Your task to perform on an android device: turn off data saver in the chrome app Image 0: 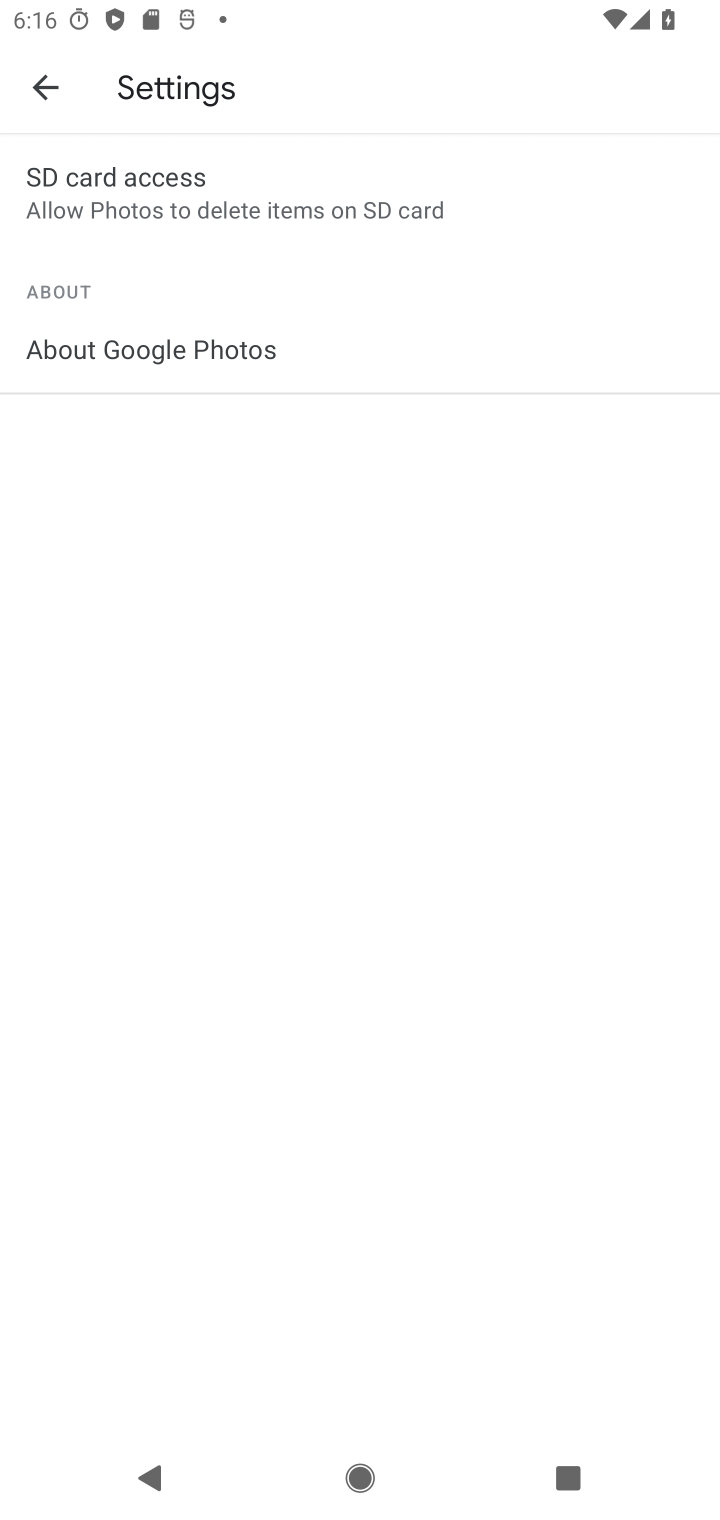
Step 0: press home button
Your task to perform on an android device: turn off data saver in the chrome app Image 1: 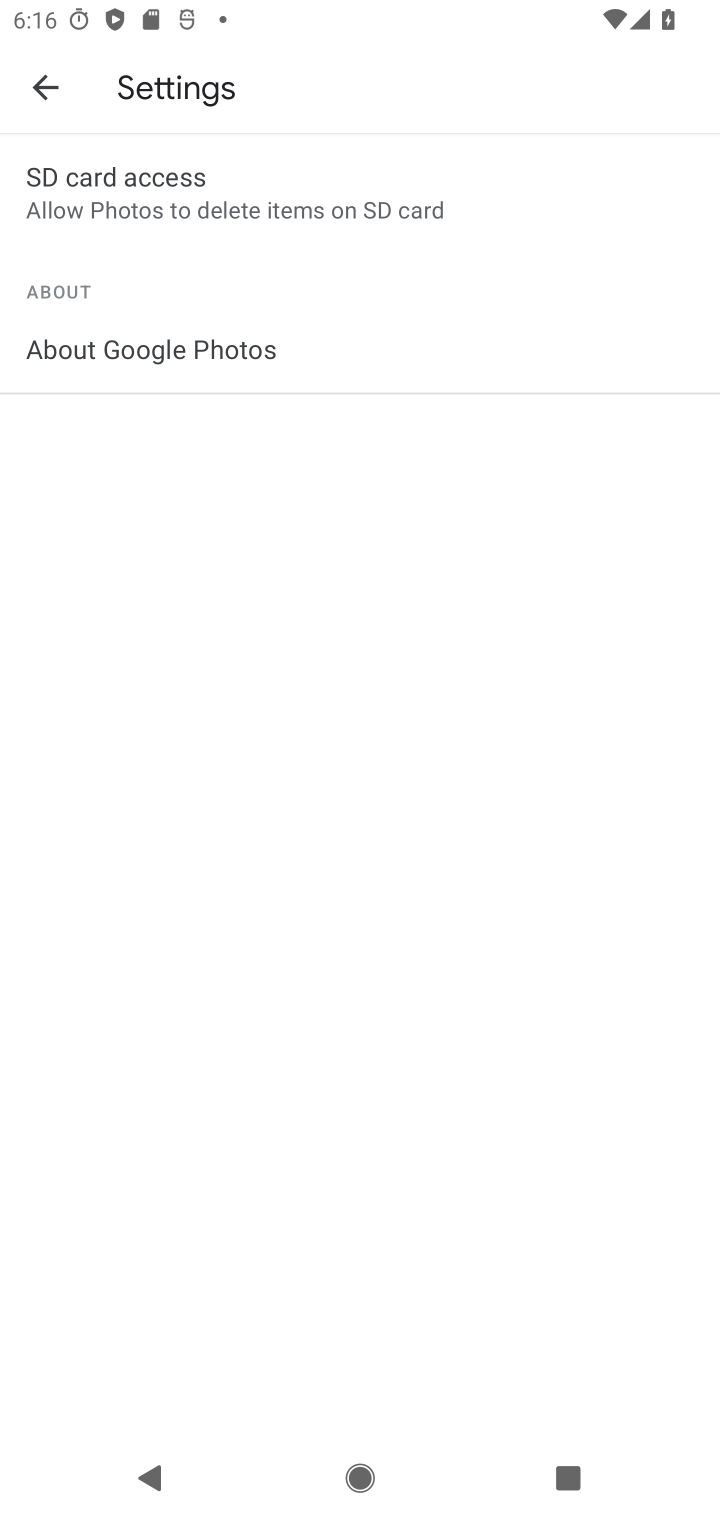
Step 1: press home button
Your task to perform on an android device: turn off data saver in the chrome app Image 2: 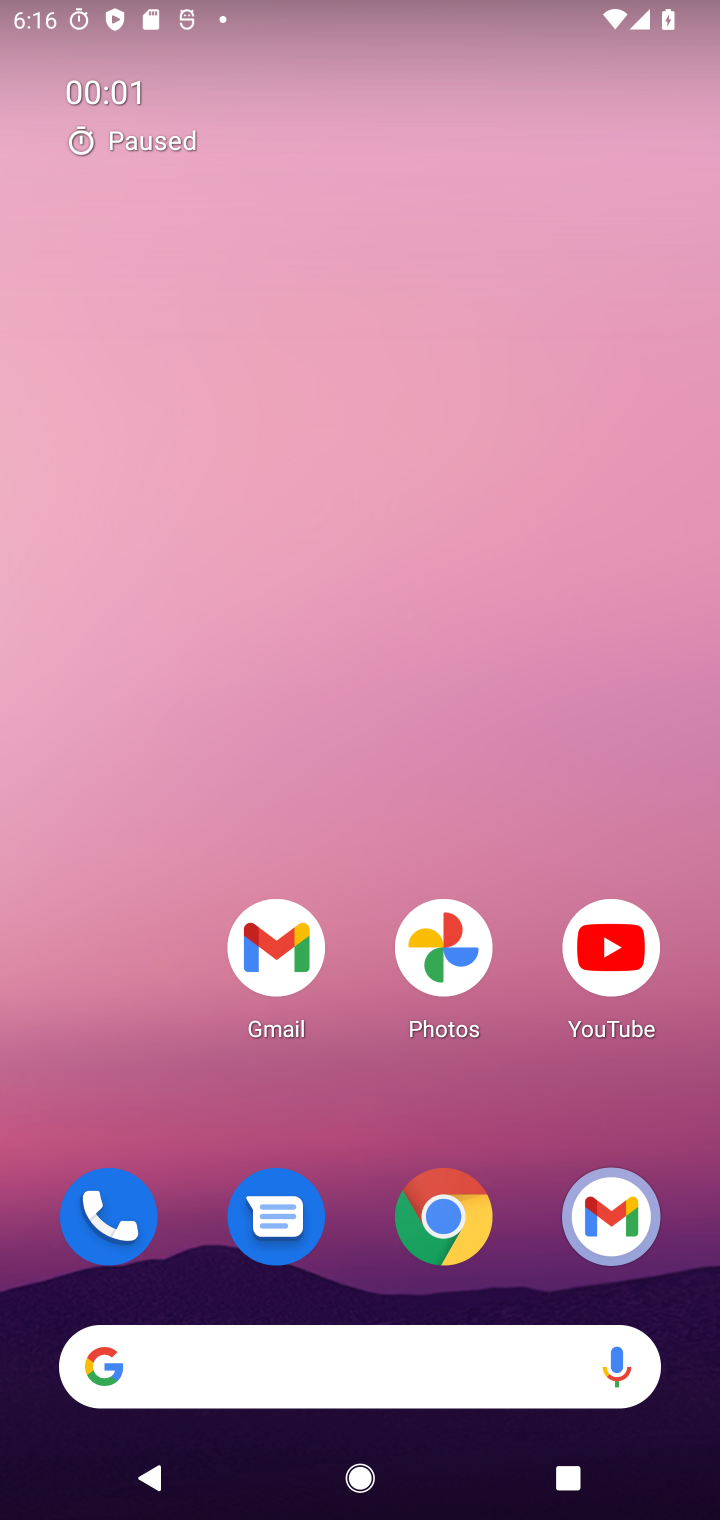
Step 2: drag from (374, 1172) to (421, 95)
Your task to perform on an android device: turn off data saver in the chrome app Image 3: 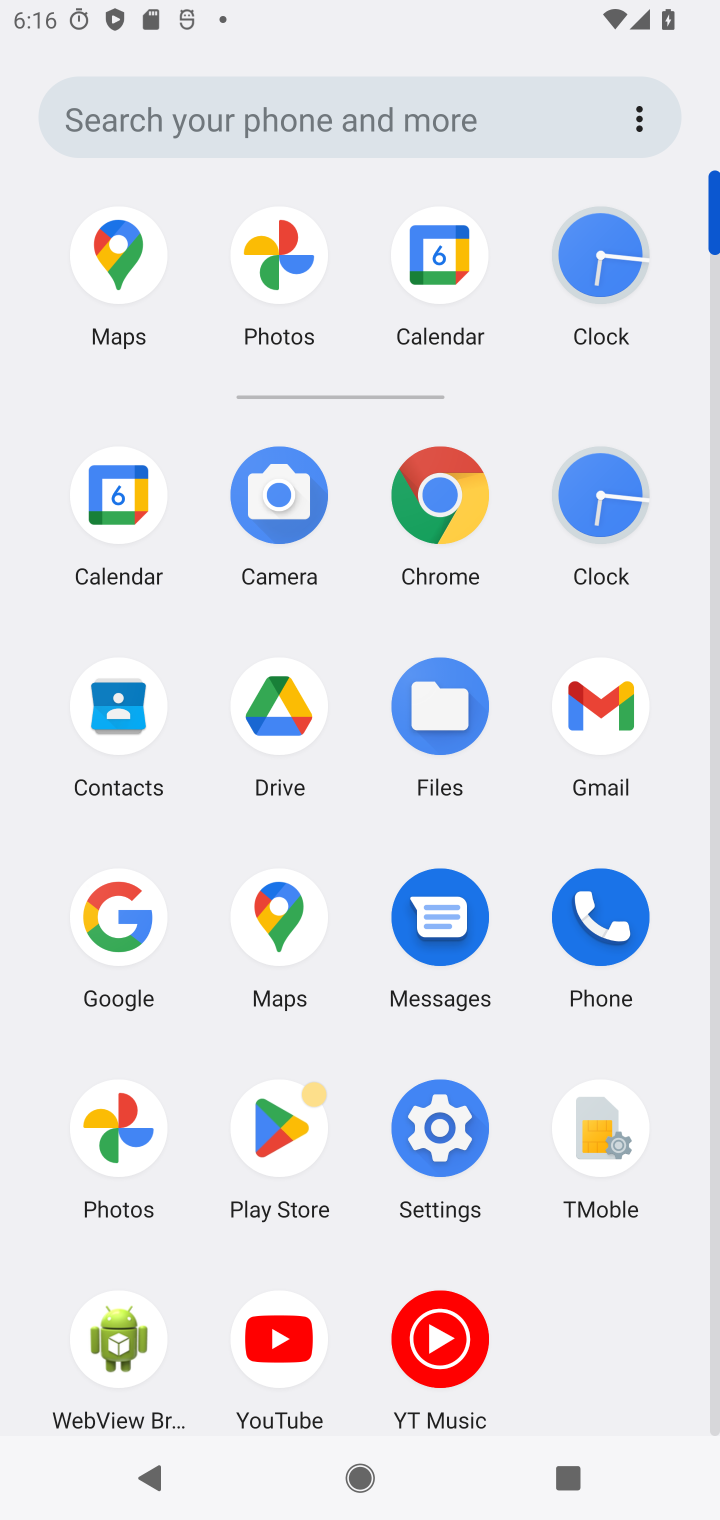
Step 3: click (441, 497)
Your task to perform on an android device: turn off data saver in the chrome app Image 4: 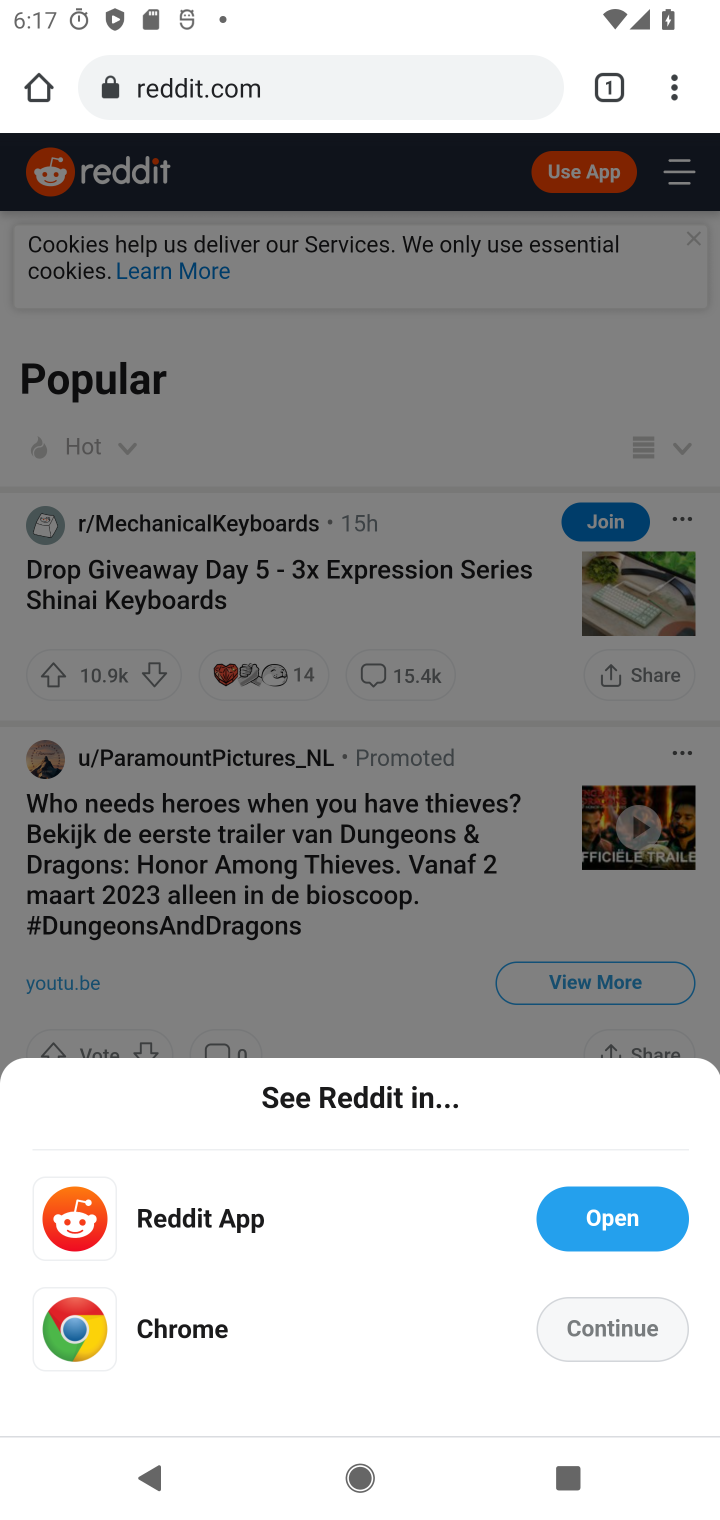
Step 4: drag from (684, 70) to (395, 1188)
Your task to perform on an android device: turn off data saver in the chrome app Image 5: 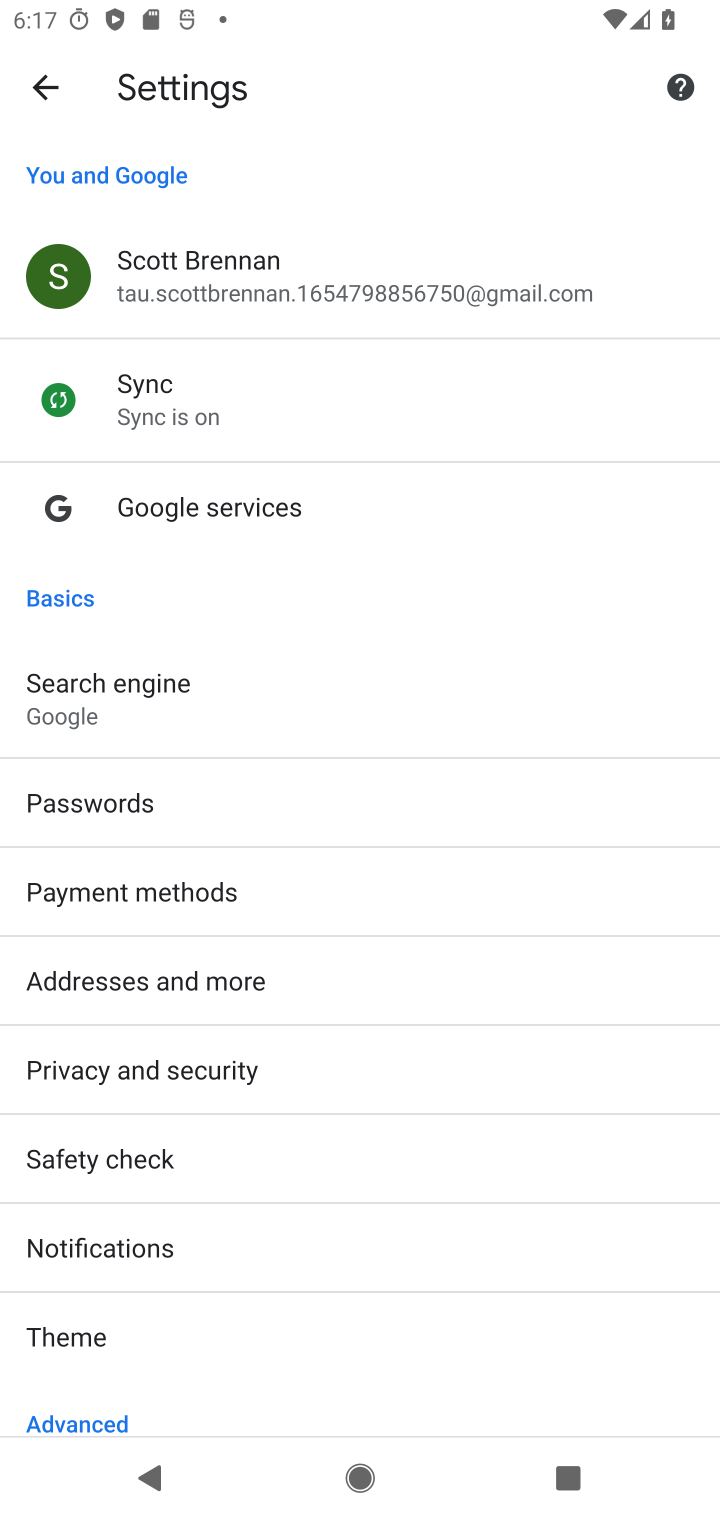
Step 5: drag from (367, 1324) to (452, 511)
Your task to perform on an android device: turn off data saver in the chrome app Image 6: 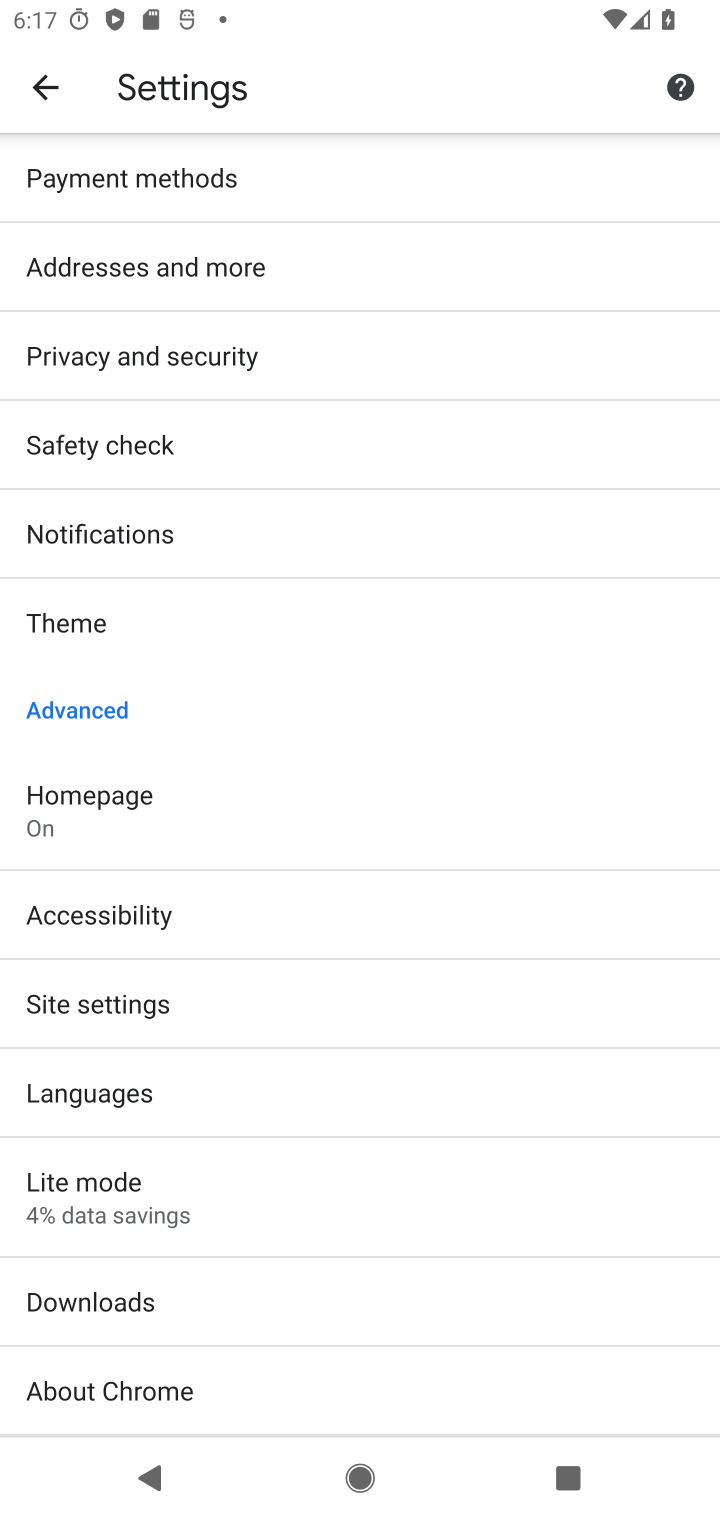
Step 6: click (205, 1195)
Your task to perform on an android device: turn off data saver in the chrome app Image 7: 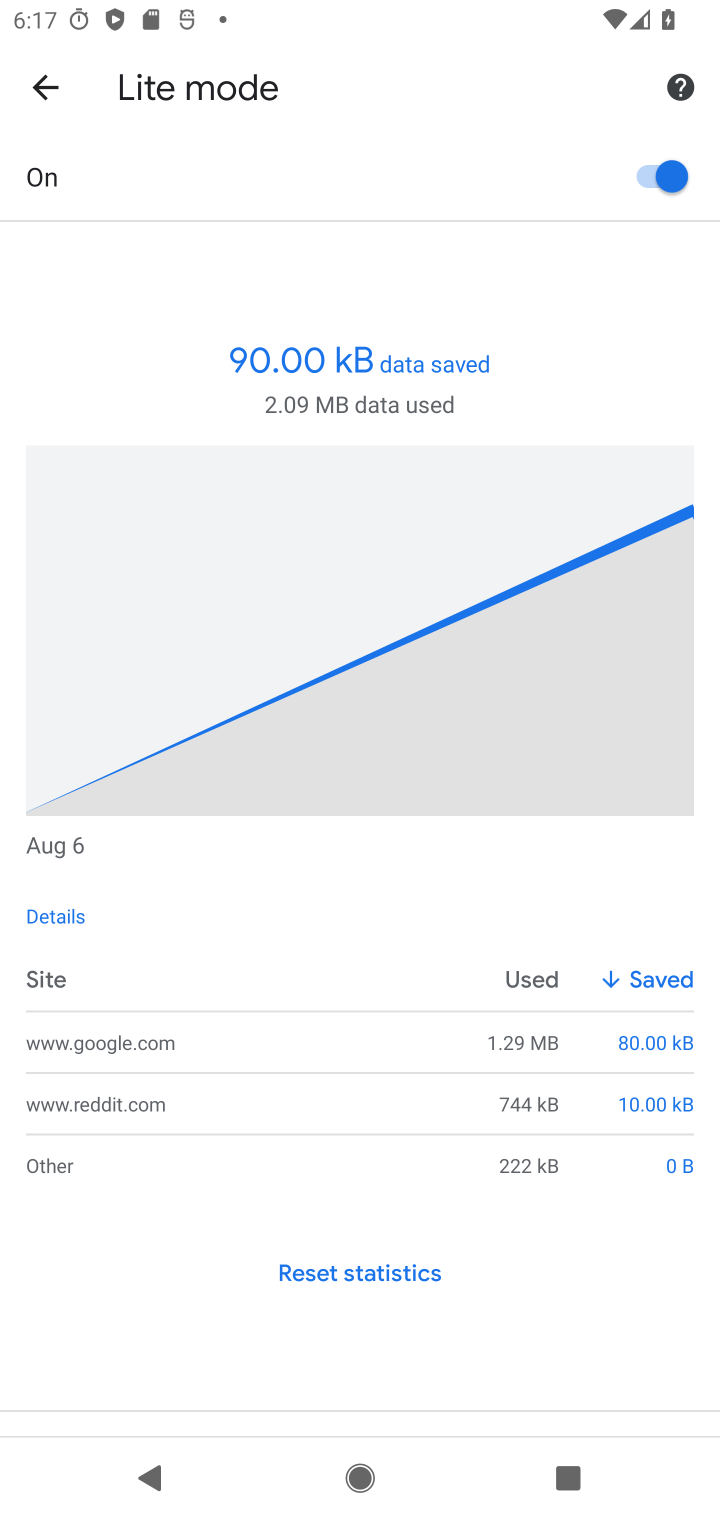
Step 7: click (666, 174)
Your task to perform on an android device: turn off data saver in the chrome app Image 8: 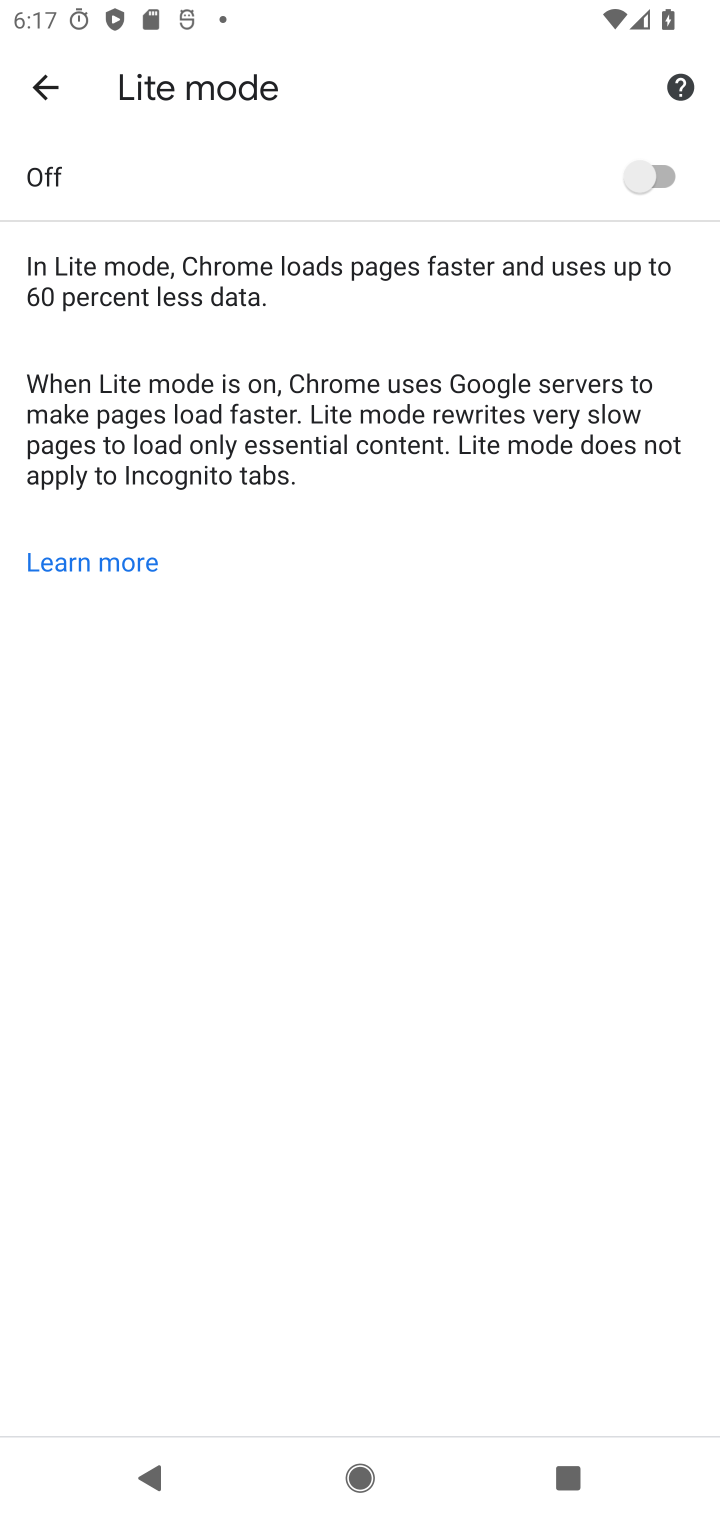
Step 8: task complete